Your task to perform on an android device: Turn on the flashlight Image 0: 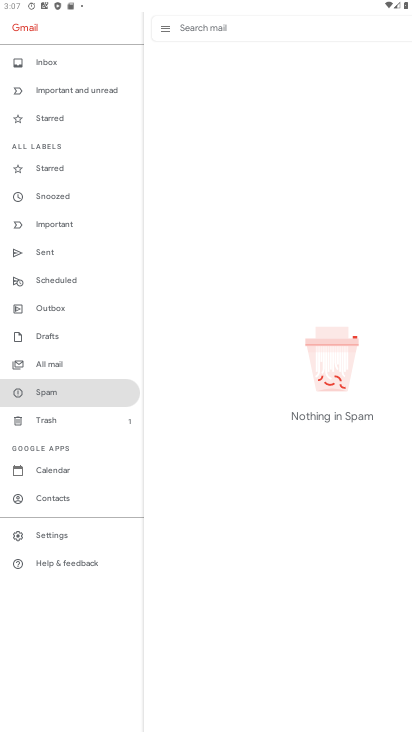
Step 0: press home button
Your task to perform on an android device: Turn on the flashlight Image 1: 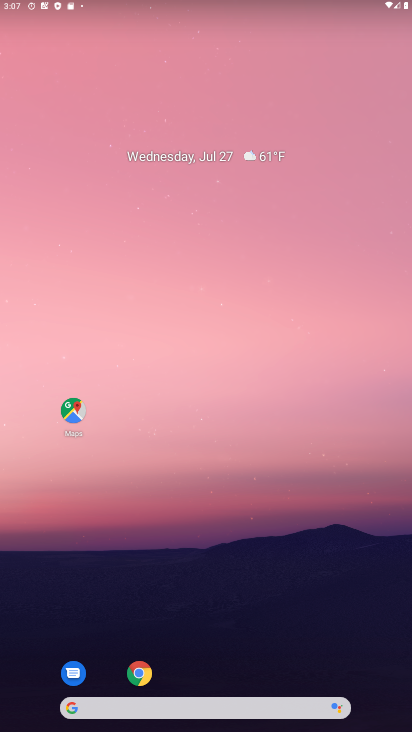
Step 1: drag from (56, 677) to (235, 57)
Your task to perform on an android device: Turn on the flashlight Image 2: 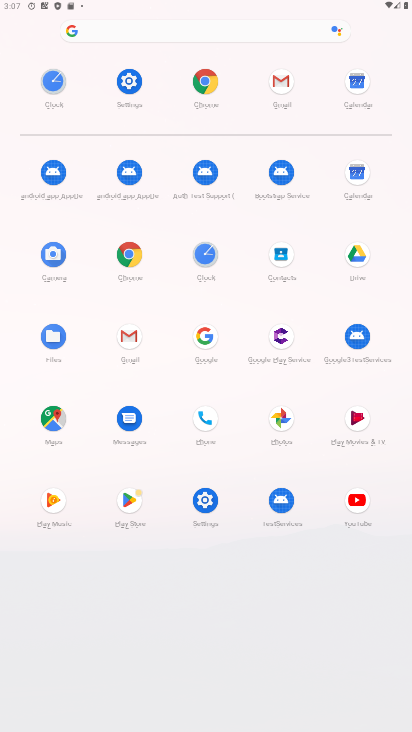
Step 2: click (194, 502)
Your task to perform on an android device: Turn on the flashlight Image 3: 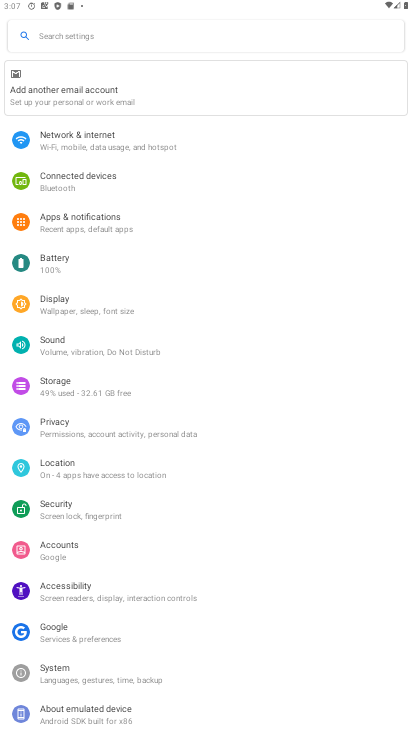
Step 3: click (94, 674)
Your task to perform on an android device: Turn on the flashlight Image 4: 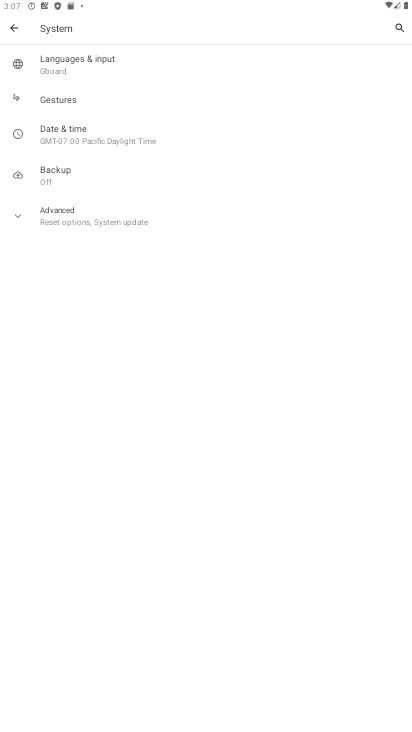
Step 4: task complete